Your task to perform on an android device: install app "The Home Depot" Image 0: 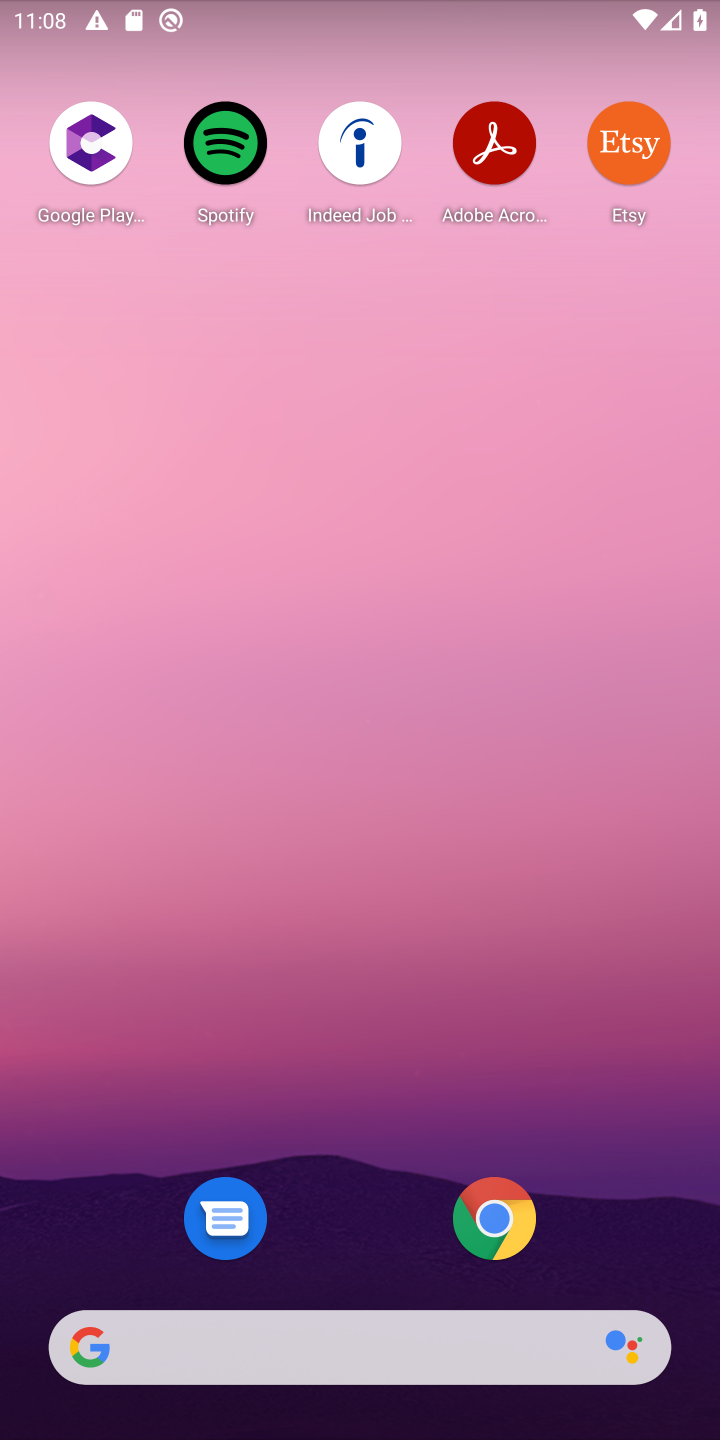
Step 0: drag from (500, 427) to (525, 266)
Your task to perform on an android device: install app "The Home Depot" Image 1: 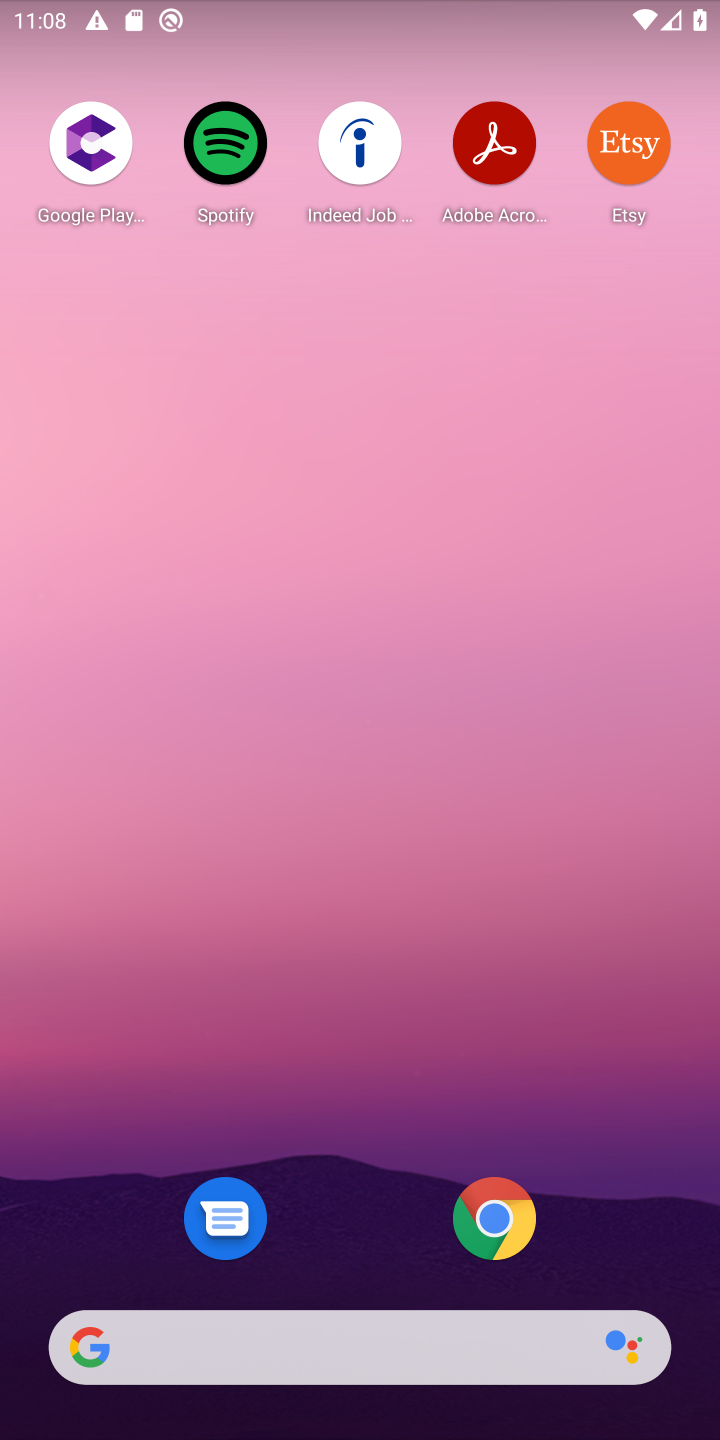
Step 1: drag from (289, 1220) to (437, 266)
Your task to perform on an android device: install app "The Home Depot" Image 2: 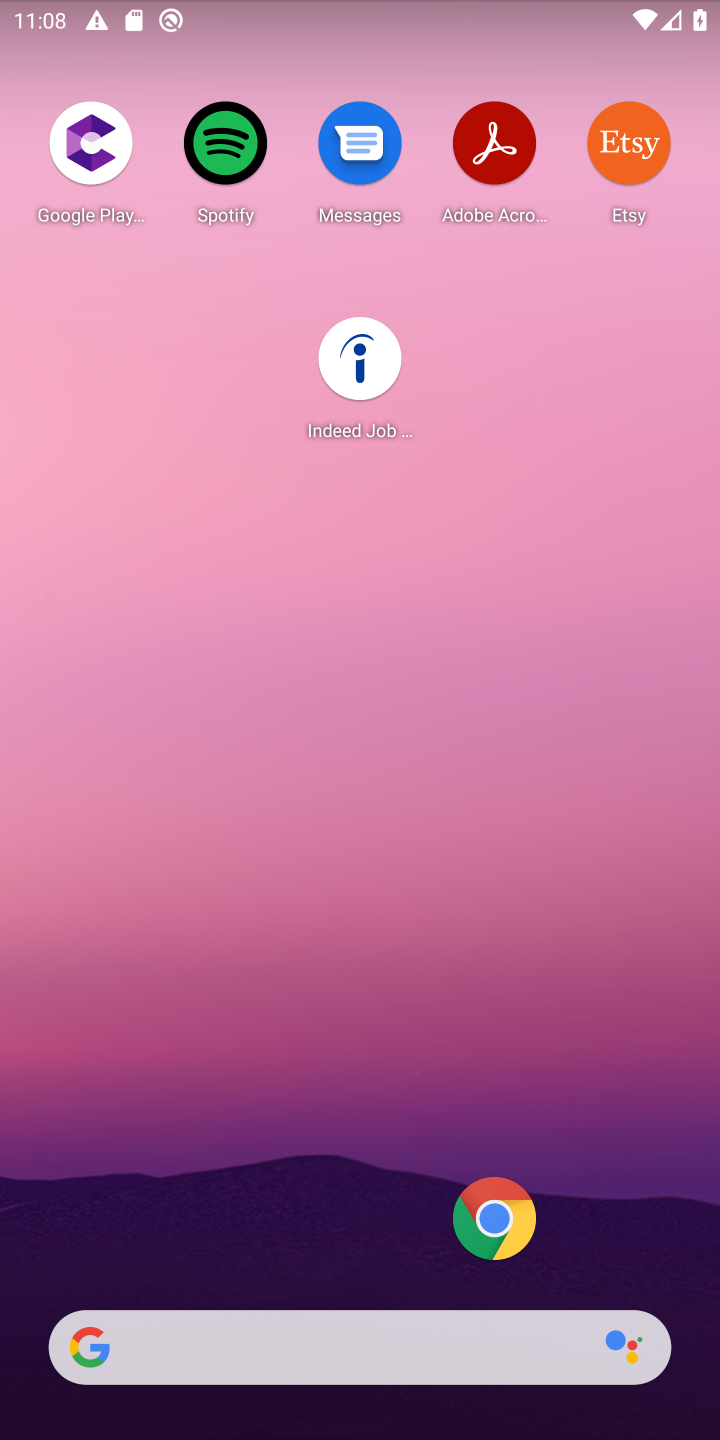
Step 2: drag from (263, 1254) to (399, 304)
Your task to perform on an android device: install app "The Home Depot" Image 3: 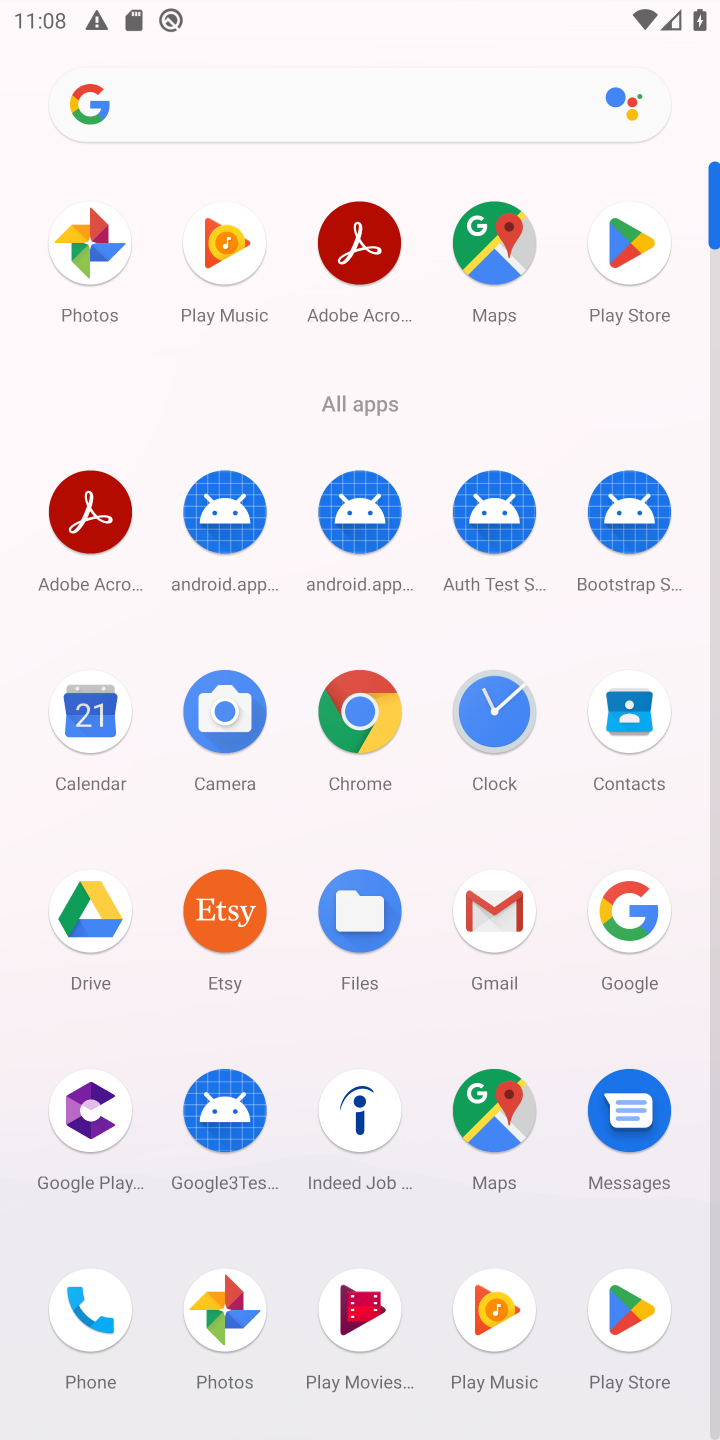
Step 3: click (637, 254)
Your task to perform on an android device: install app "The Home Depot" Image 4: 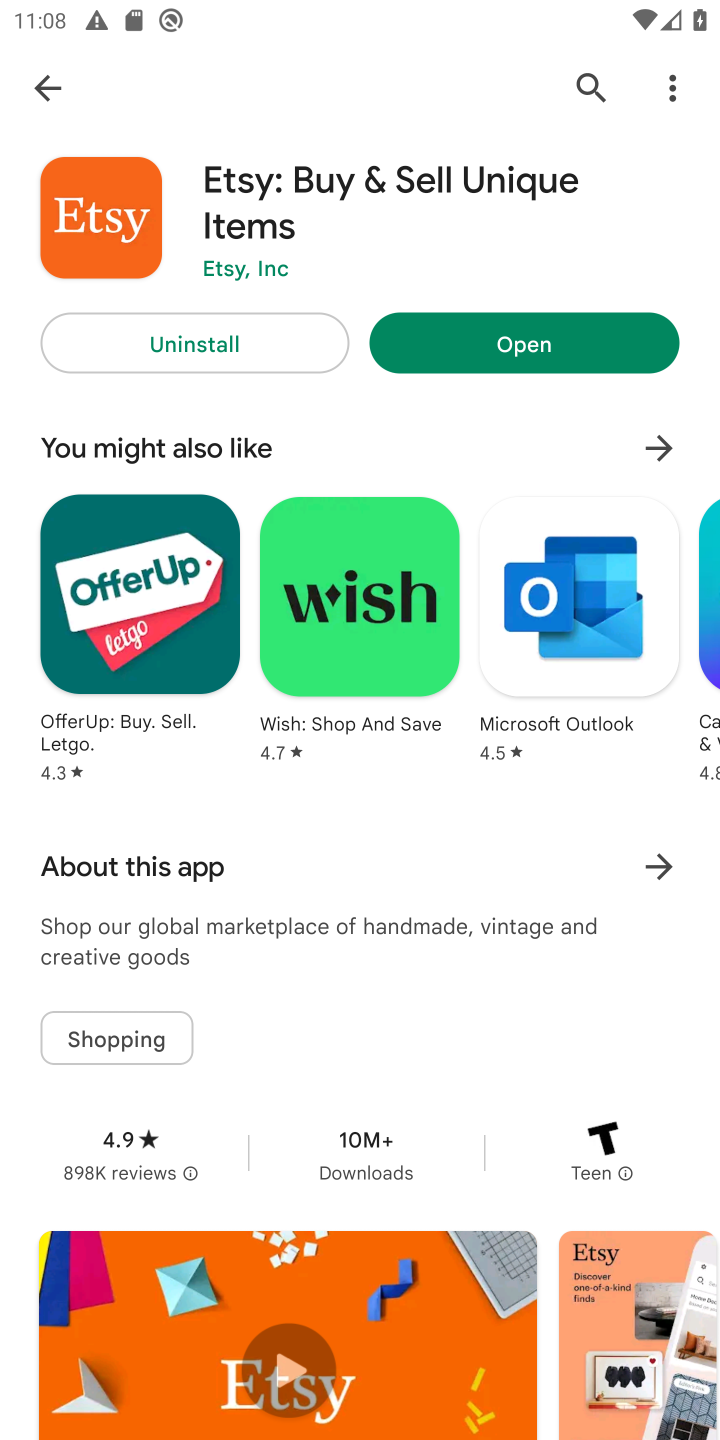
Step 4: click (585, 83)
Your task to perform on an android device: install app "The Home Depot" Image 5: 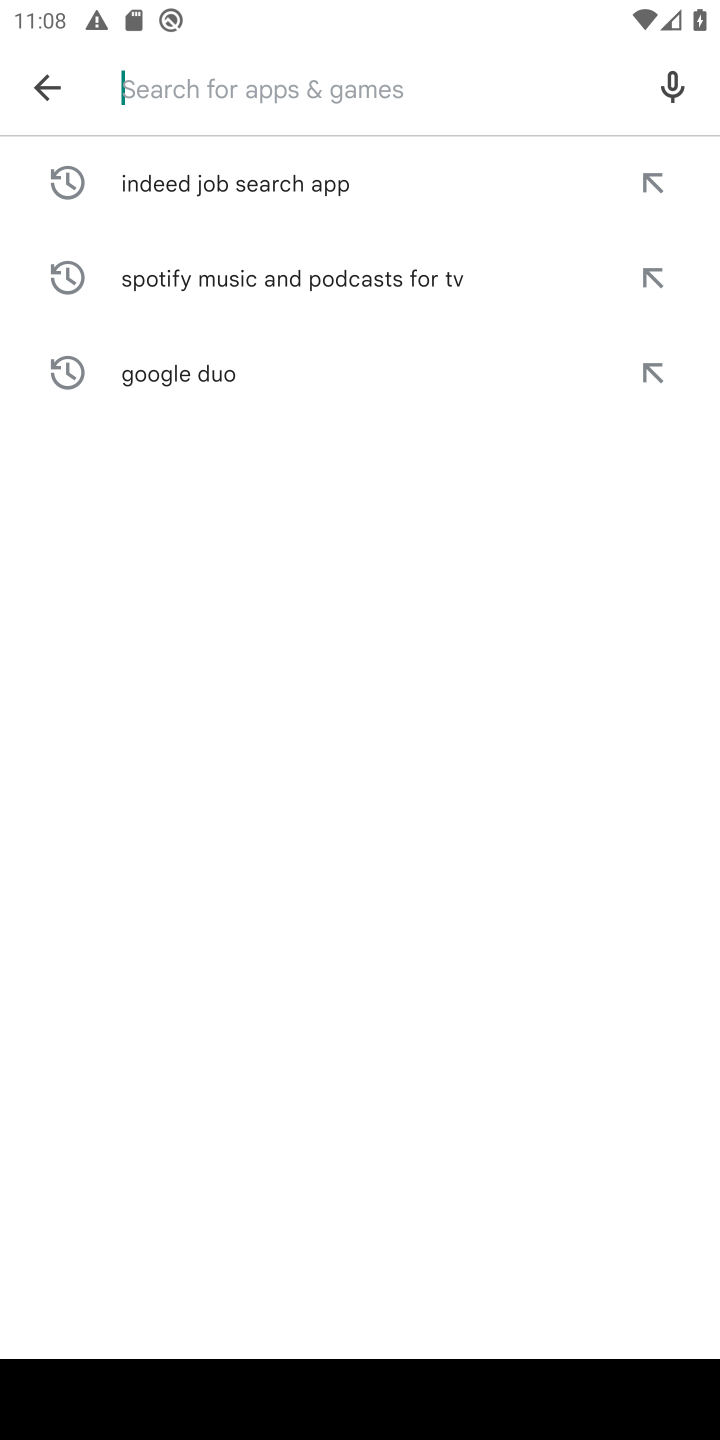
Step 5: click (394, 84)
Your task to perform on an android device: install app "The Home Depot" Image 6: 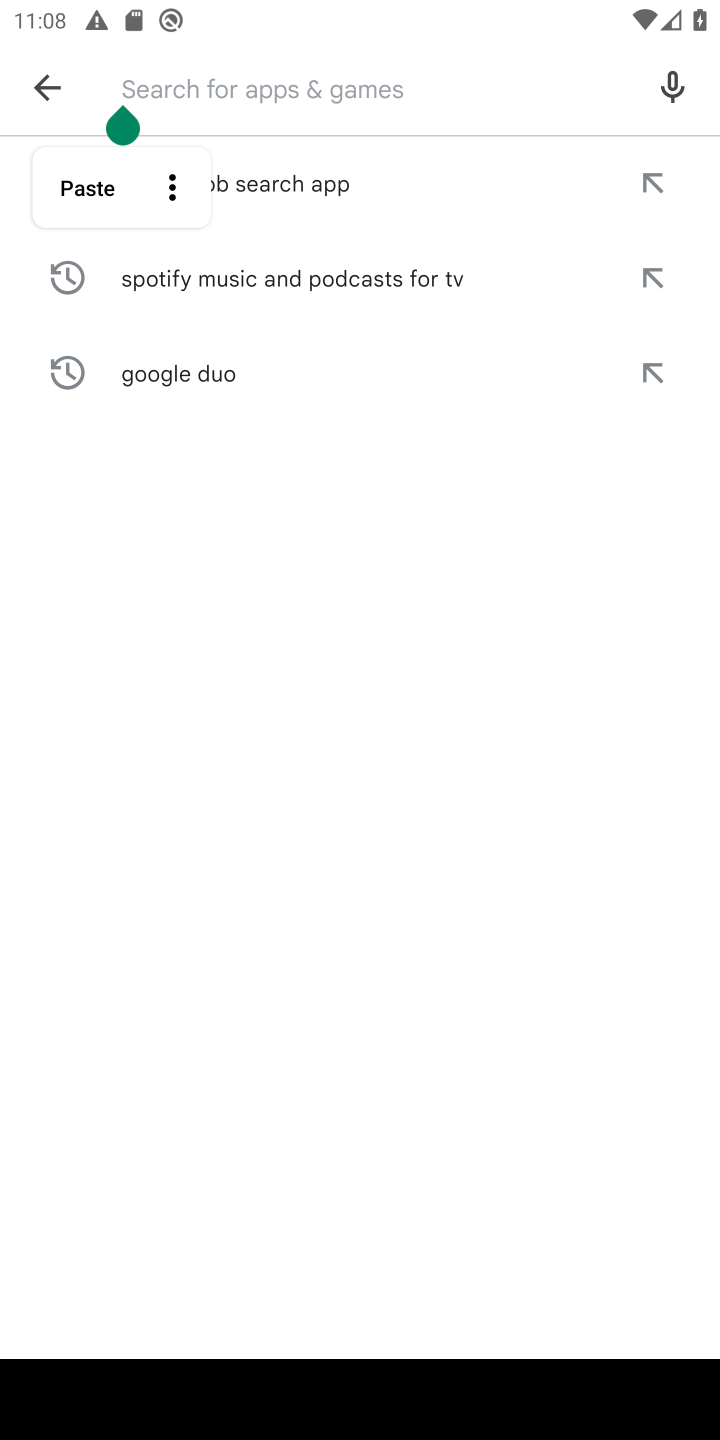
Step 6: type "The Home Depot"
Your task to perform on an android device: install app "The Home Depot" Image 7: 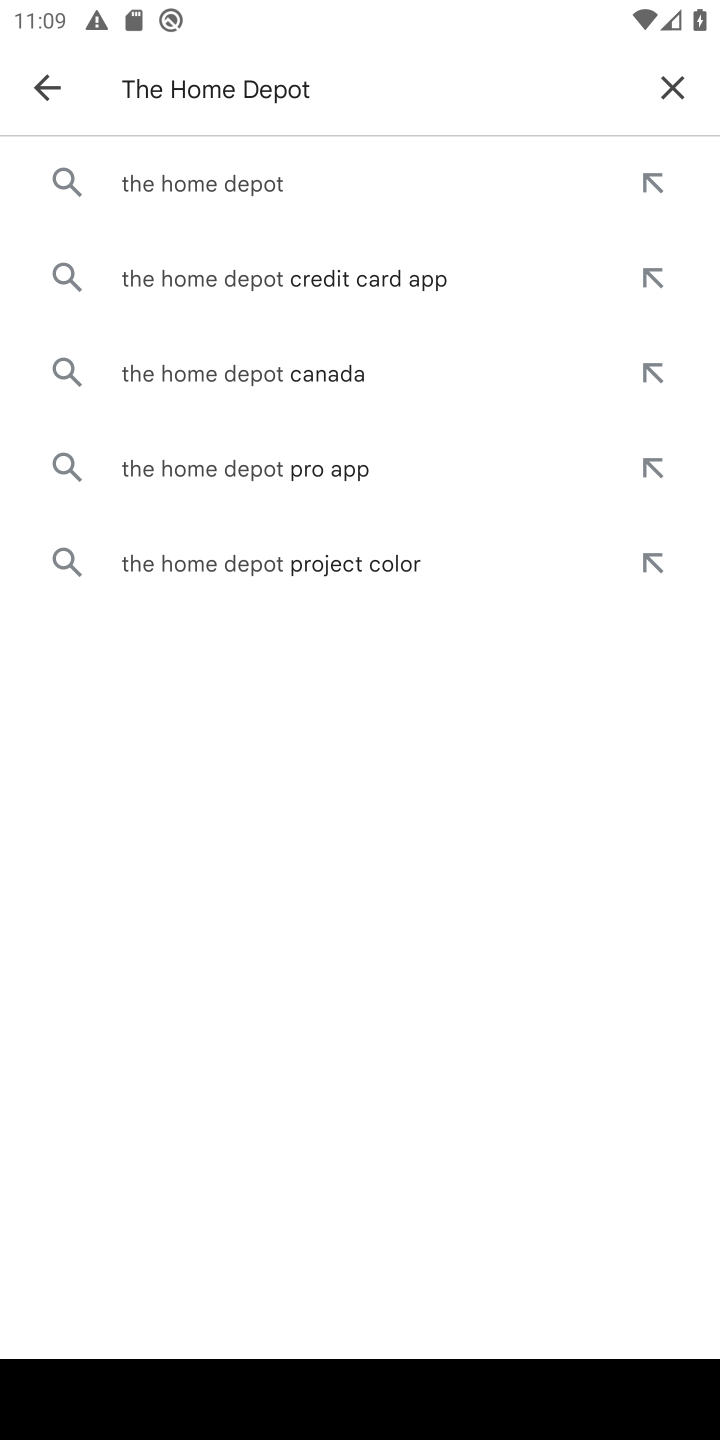
Step 7: click (260, 173)
Your task to perform on an android device: install app "The Home Depot" Image 8: 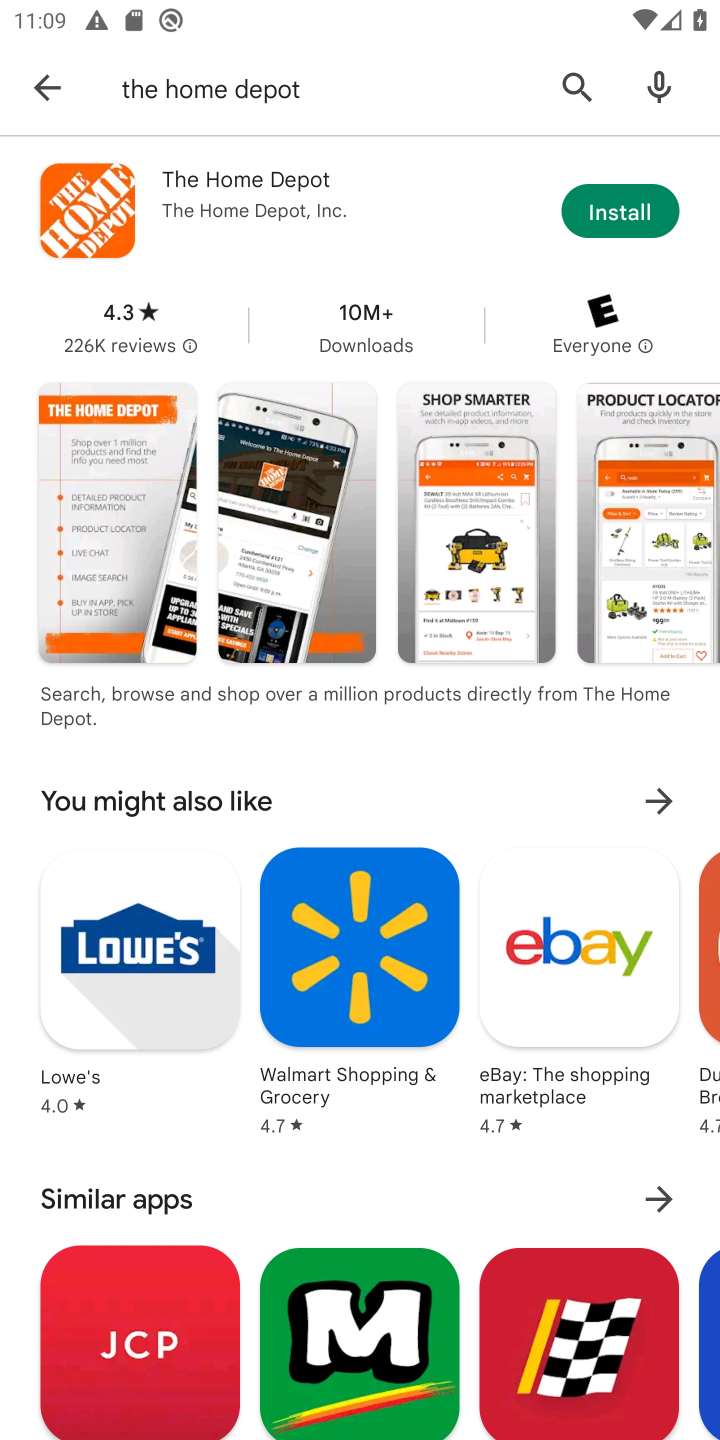
Step 8: click (618, 209)
Your task to perform on an android device: install app "The Home Depot" Image 9: 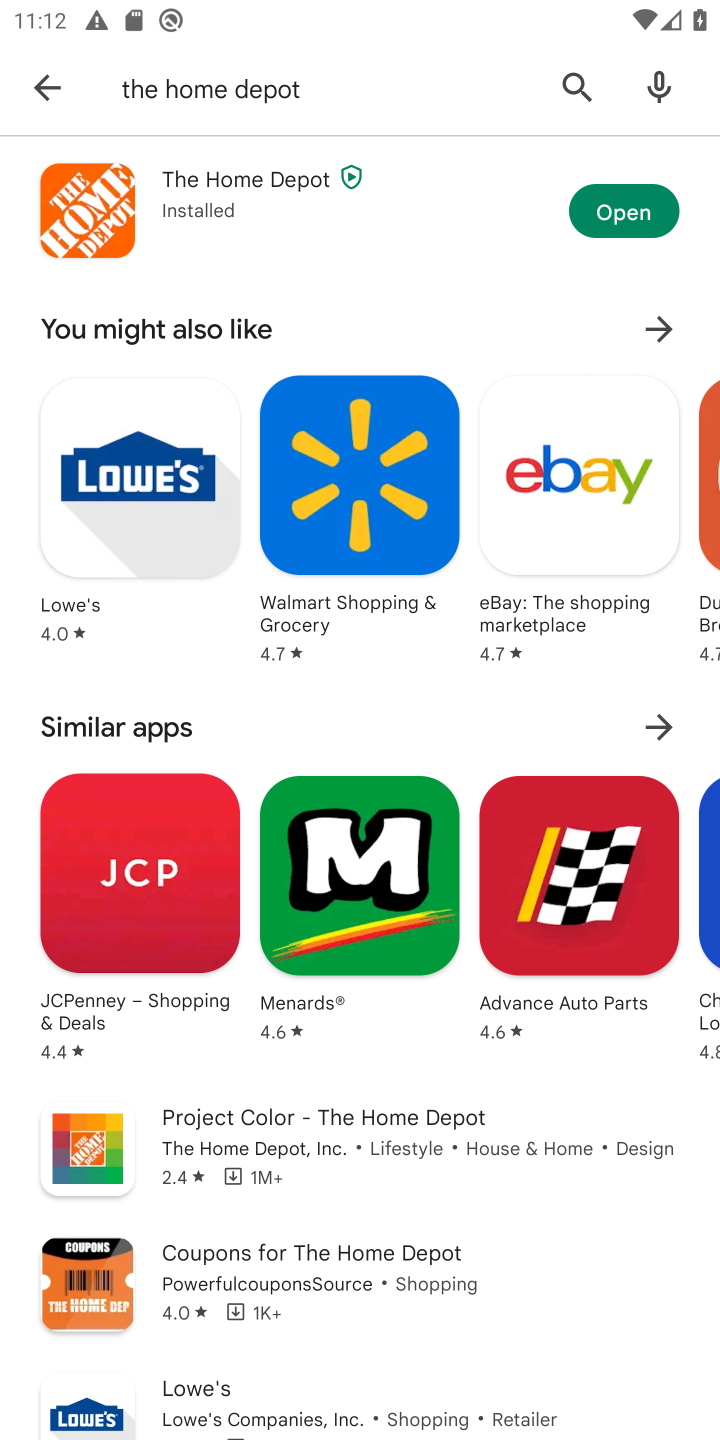
Step 9: click (603, 210)
Your task to perform on an android device: install app "The Home Depot" Image 10: 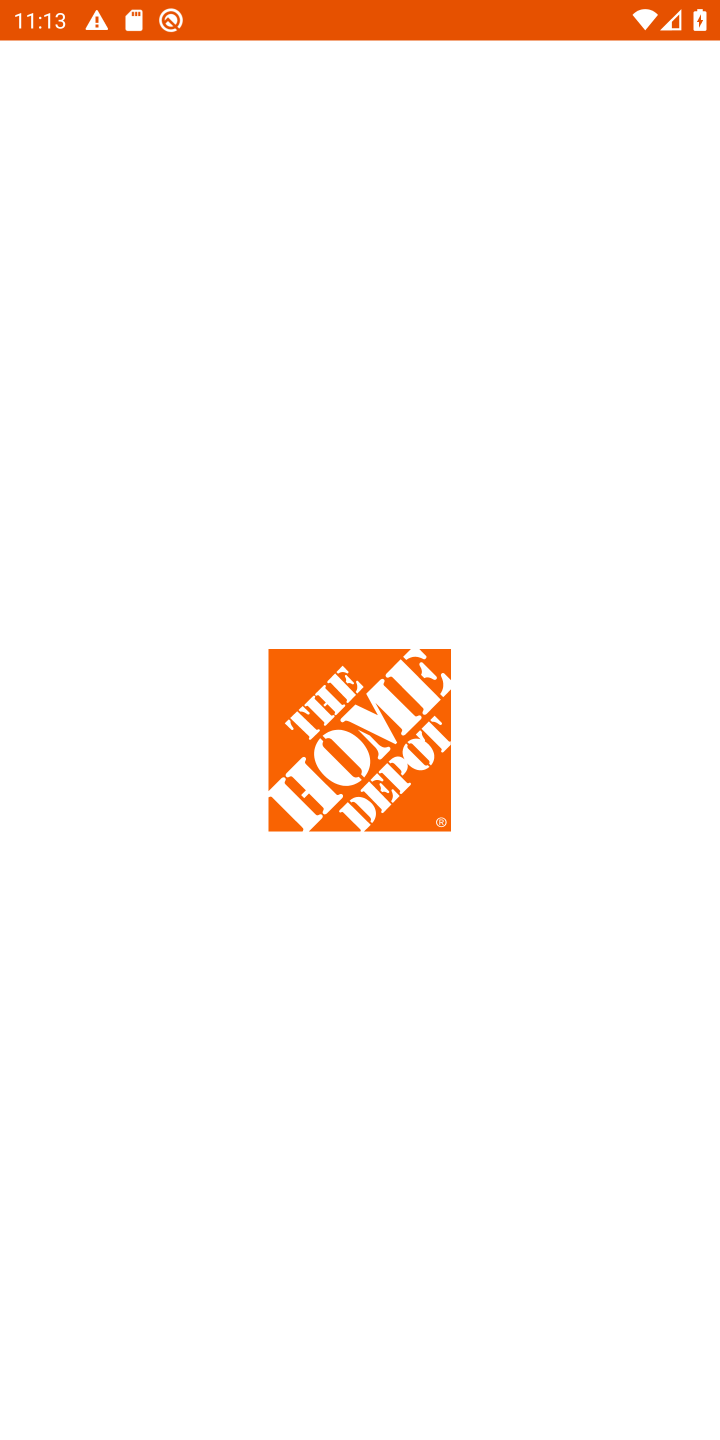
Step 10: task complete